Your task to perform on an android device: turn off translation in the chrome app Image 0: 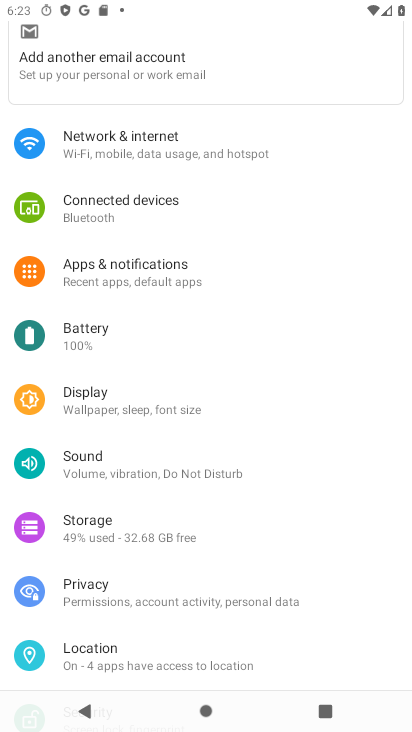
Step 0: press back button
Your task to perform on an android device: turn off translation in the chrome app Image 1: 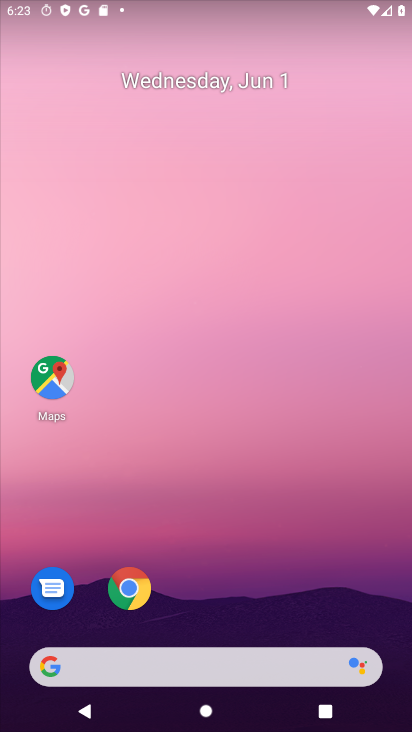
Step 1: drag from (234, 612) to (221, 379)
Your task to perform on an android device: turn off translation in the chrome app Image 2: 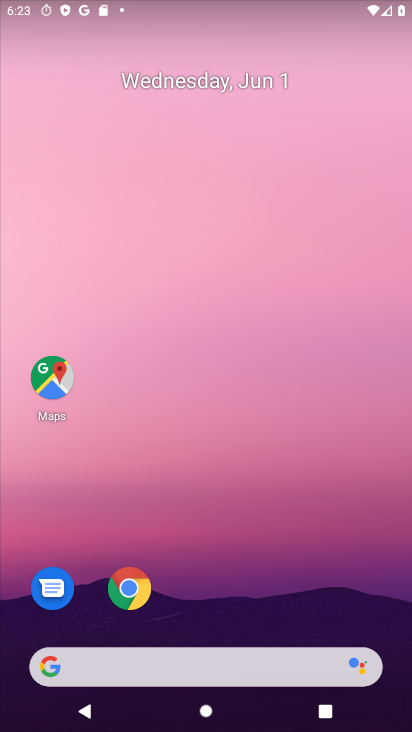
Step 2: drag from (205, 583) to (205, 181)
Your task to perform on an android device: turn off translation in the chrome app Image 3: 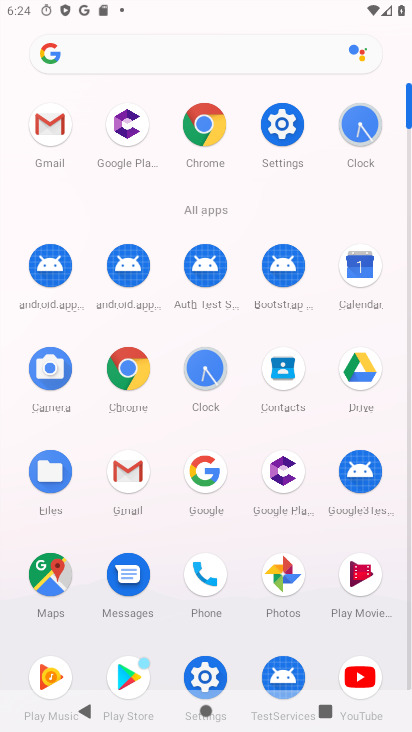
Step 3: click (273, 137)
Your task to perform on an android device: turn off translation in the chrome app Image 4: 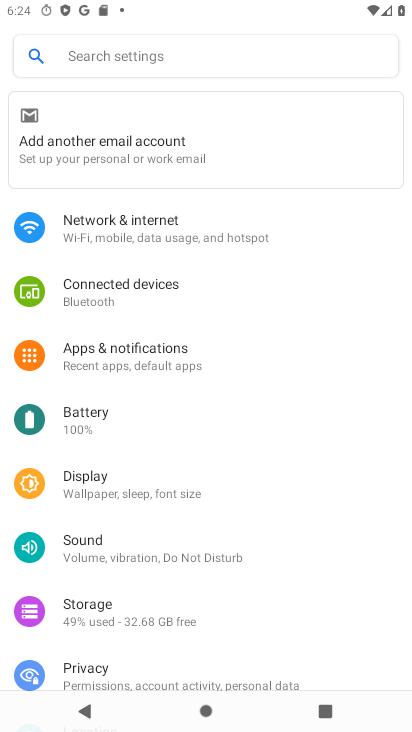
Step 4: task complete